Your task to perform on an android device: Open my contact list Image 0: 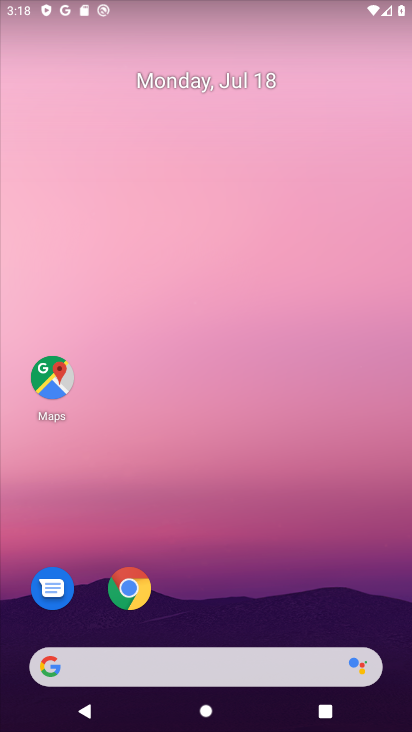
Step 0: drag from (290, 611) to (279, 81)
Your task to perform on an android device: Open my contact list Image 1: 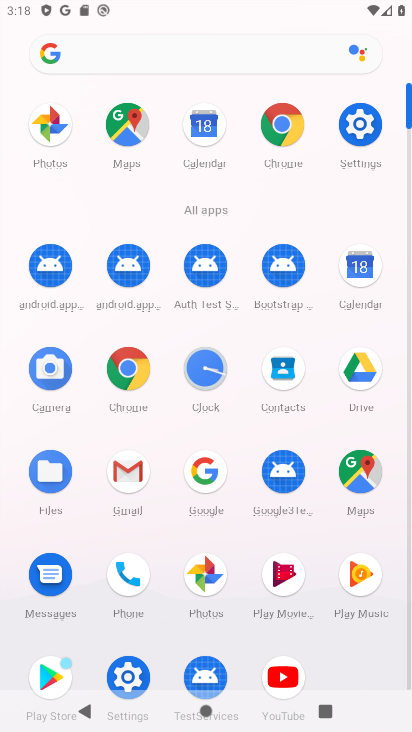
Step 1: click (288, 370)
Your task to perform on an android device: Open my contact list Image 2: 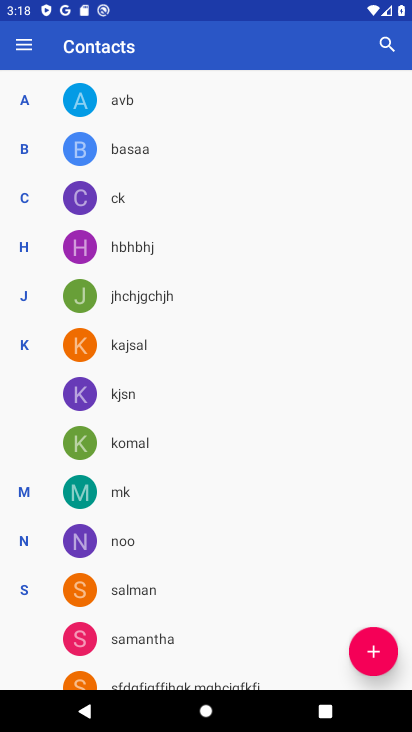
Step 2: task complete